Your task to perform on an android device: see creations saved in the google photos Image 0: 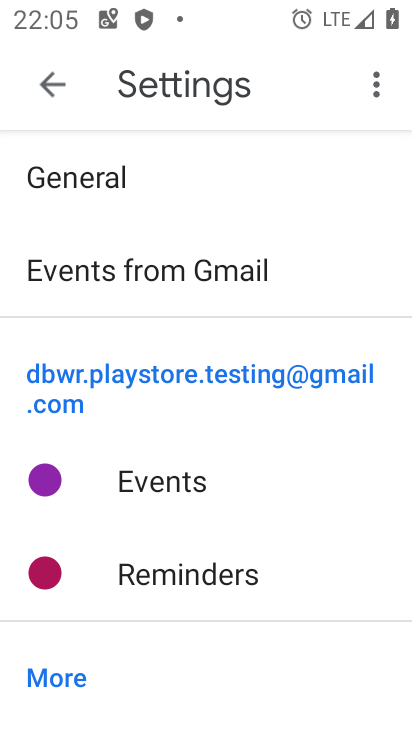
Step 0: press home button
Your task to perform on an android device: see creations saved in the google photos Image 1: 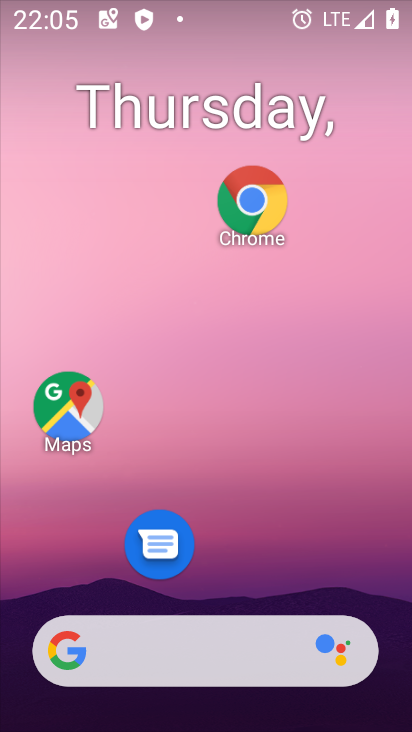
Step 1: drag from (224, 573) to (296, 44)
Your task to perform on an android device: see creations saved in the google photos Image 2: 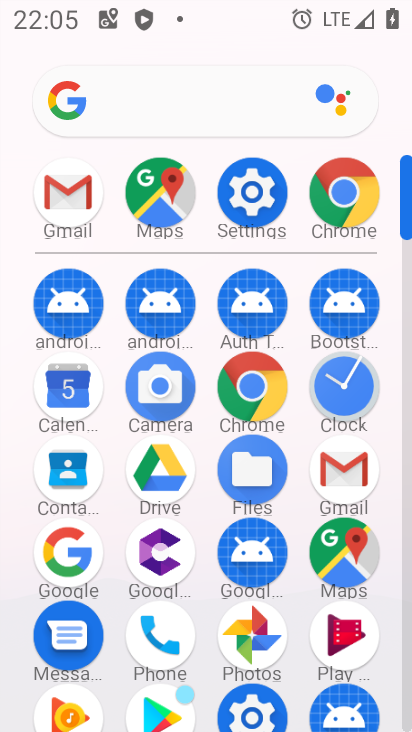
Step 2: click (254, 632)
Your task to perform on an android device: see creations saved in the google photos Image 3: 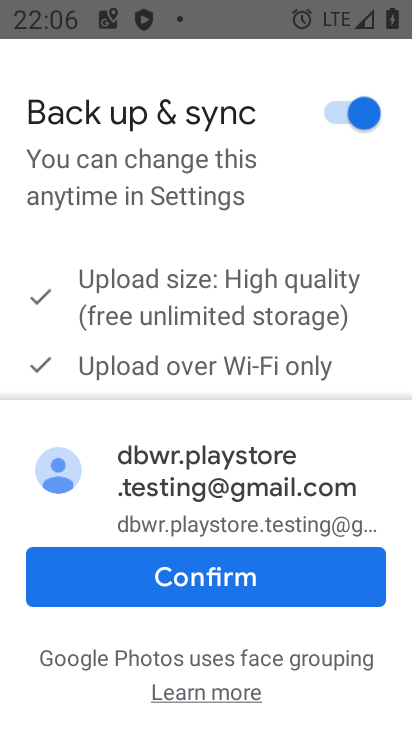
Step 3: click (103, 567)
Your task to perform on an android device: see creations saved in the google photos Image 4: 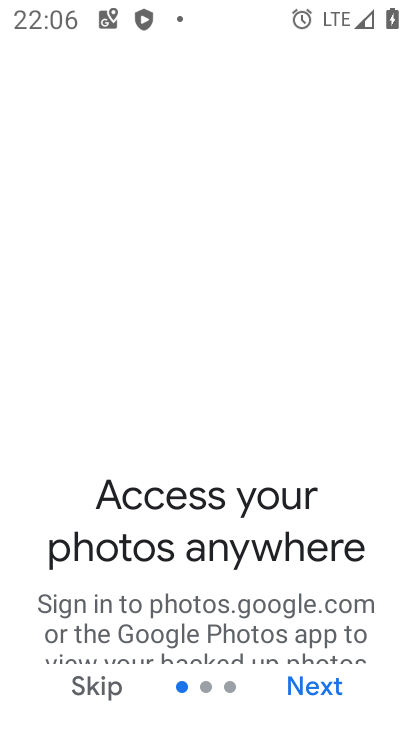
Step 4: click (296, 701)
Your task to perform on an android device: see creations saved in the google photos Image 5: 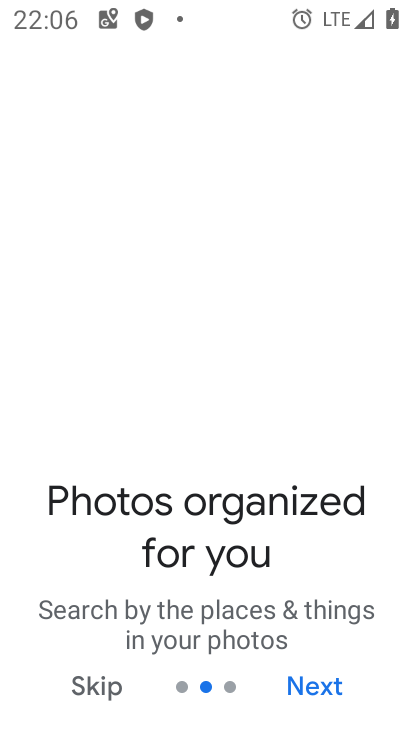
Step 5: click (296, 701)
Your task to perform on an android device: see creations saved in the google photos Image 6: 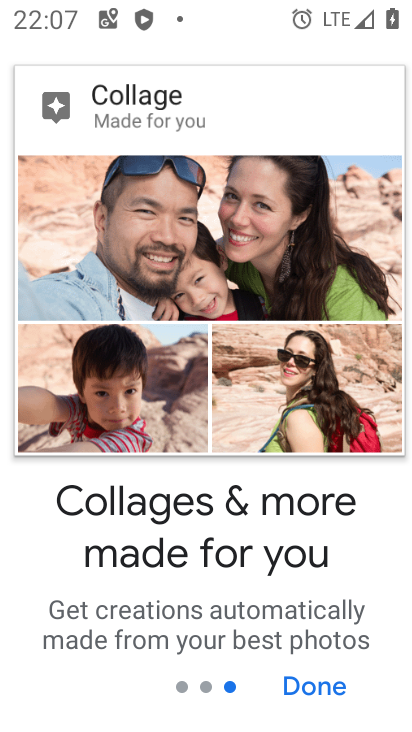
Step 6: click (296, 701)
Your task to perform on an android device: see creations saved in the google photos Image 7: 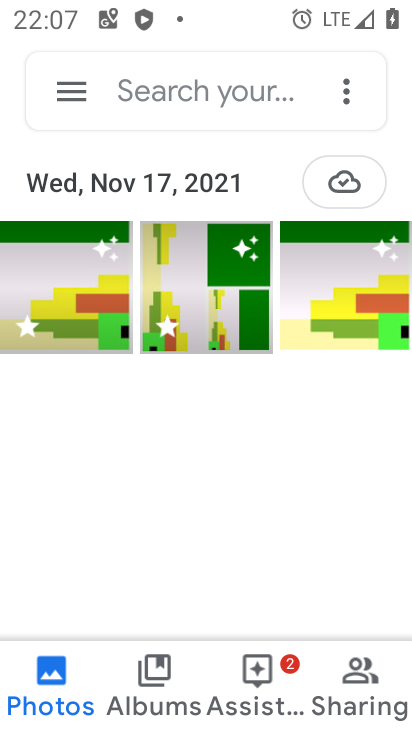
Step 7: click (50, 87)
Your task to perform on an android device: see creations saved in the google photos Image 8: 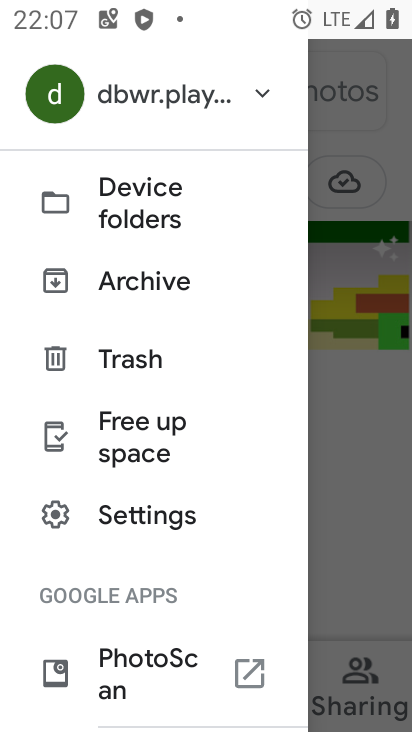
Step 8: click (362, 452)
Your task to perform on an android device: see creations saved in the google photos Image 9: 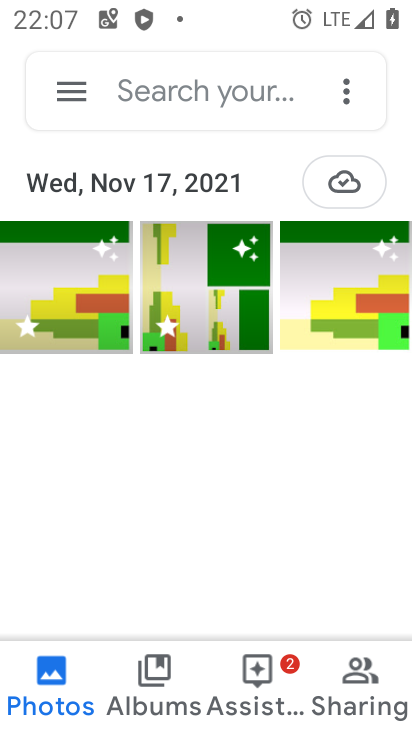
Step 9: click (267, 671)
Your task to perform on an android device: see creations saved in the google photos Image 10: 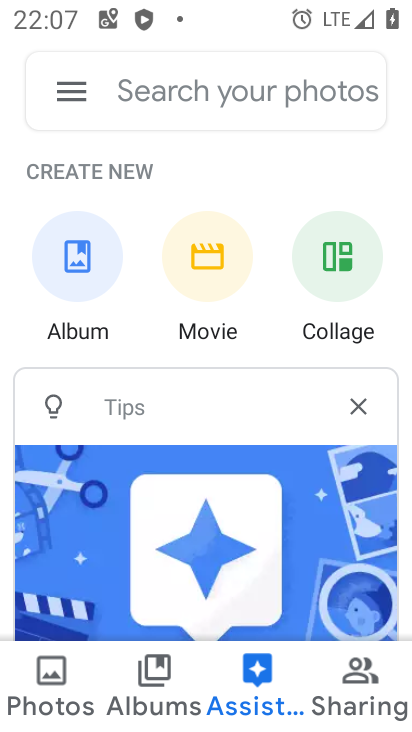
Step 10: drag from (168, 605) to (199, 169)
Your task to perform on an android device: see creations saved in the google photos Image 11: 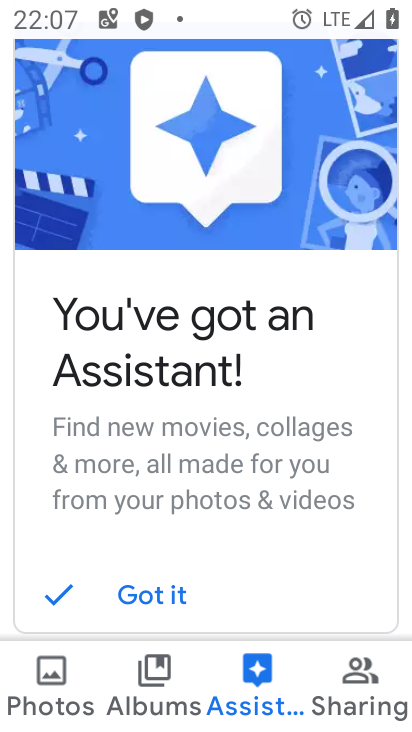
Step 11: drag from (152, 616) to (260, 219)
Your task to perform on an android device: see creations saved in the google photos Image 12: 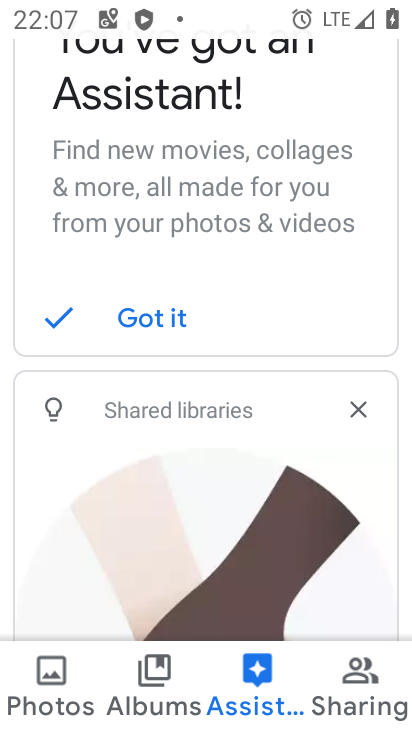
Step 12: drag from (164, 581) to (297, 23)
Your task to perform on an android device: see creations saved in the google photos Image 13: 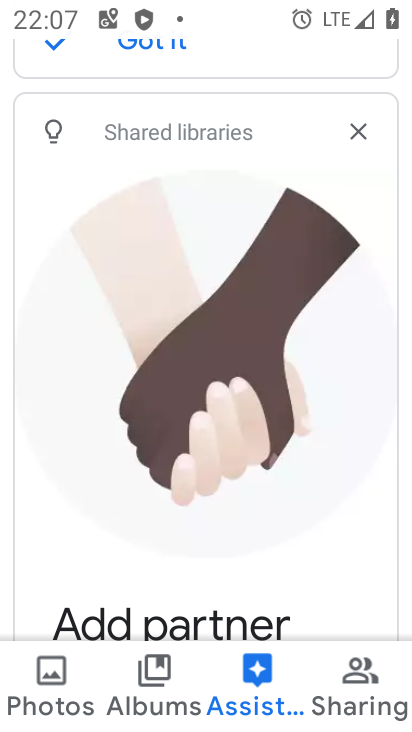
Step 13: drag from (78, 494) to (86, 140)
Your task to perform on an android device: see creations saved in the google photos Image 14: 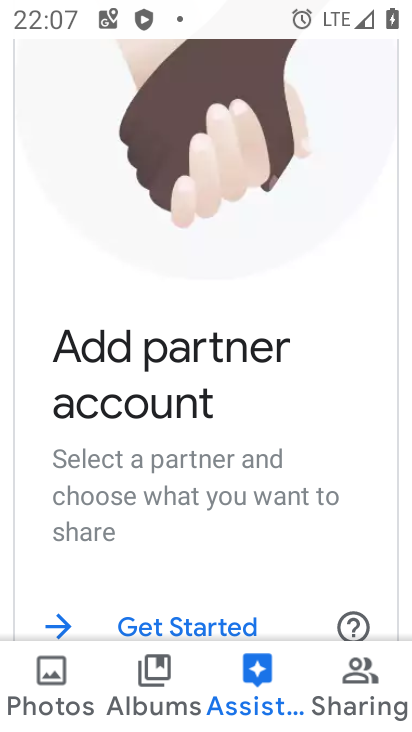
Step 14: drag from (133, 564) to (220, 58)
Your task to perform on an android device: see creations saved in the google photos Image 15: 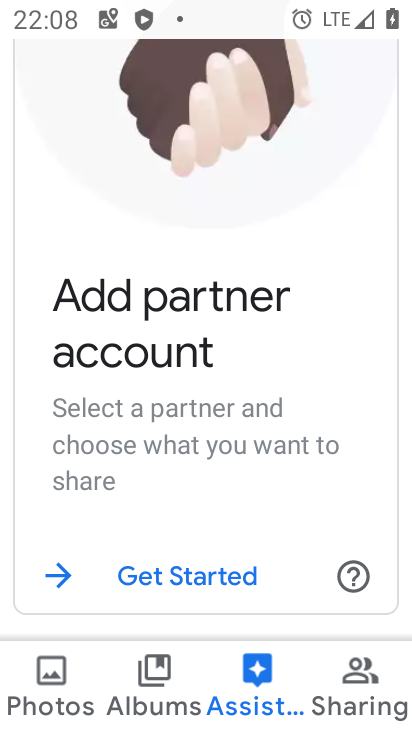
Step 15: click (150, 653)
Your task to perform on an android device: see creations saved in the google photos Image 16: 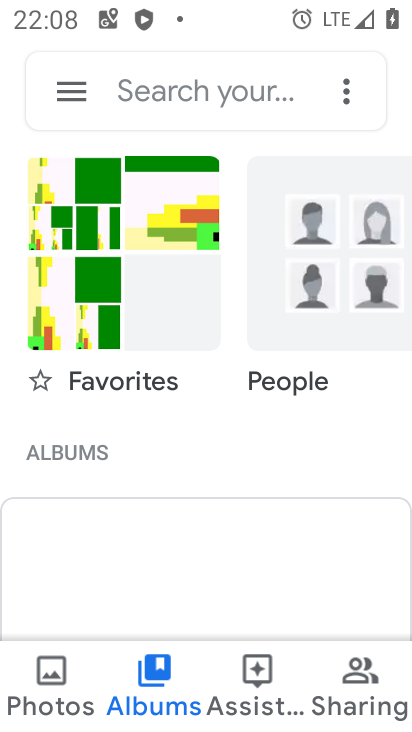
Step 16: task complete